Your task to perform on an android device: change timer sound Image 0: 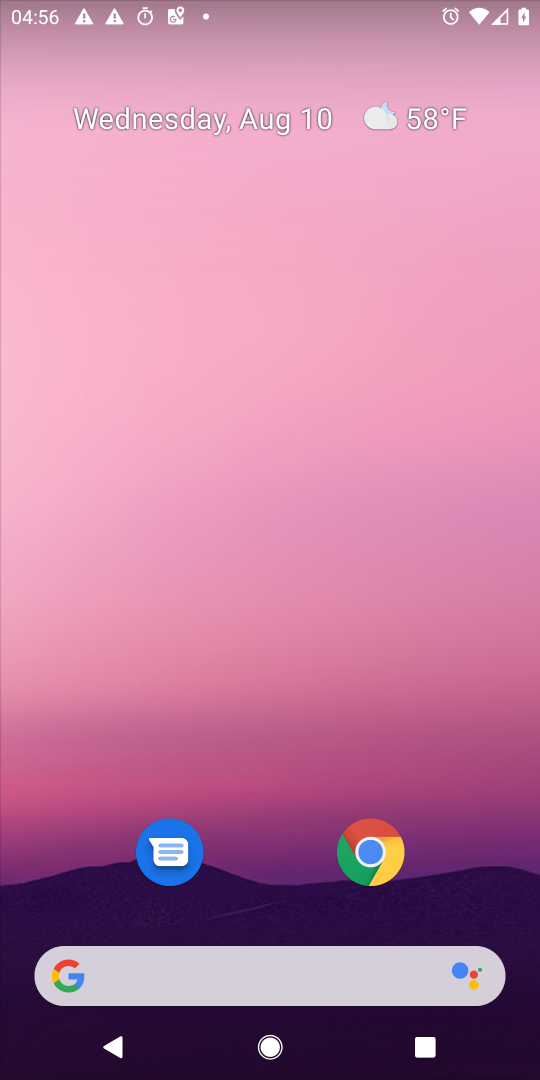
Step 0: drag from (243, 914) to (137, 375)
Your task to perform on an android device: change timer sound Image 1: 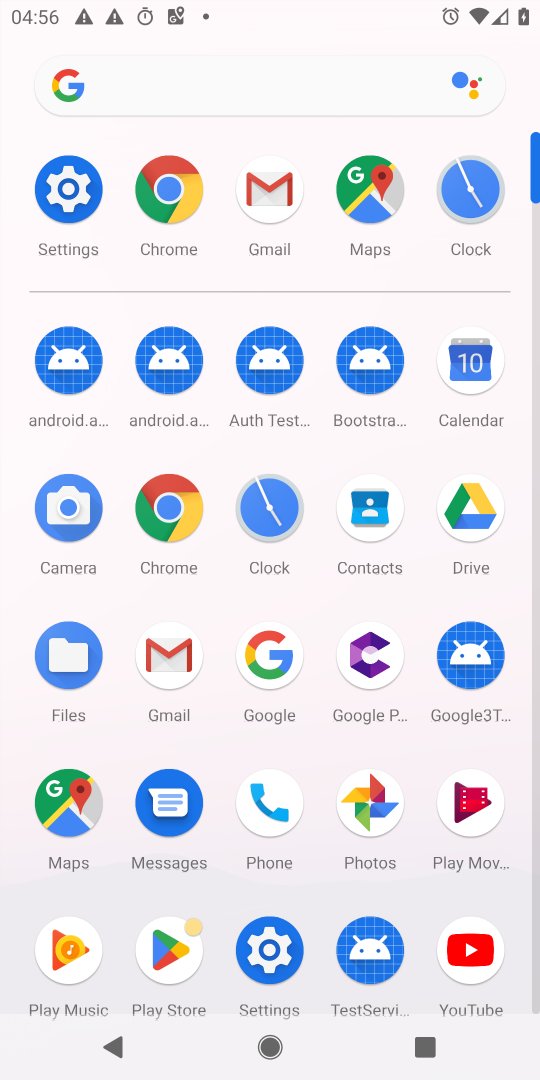
Step 1: click (270, 505)
Your task to perform on an android device: change timer sound Image 2: 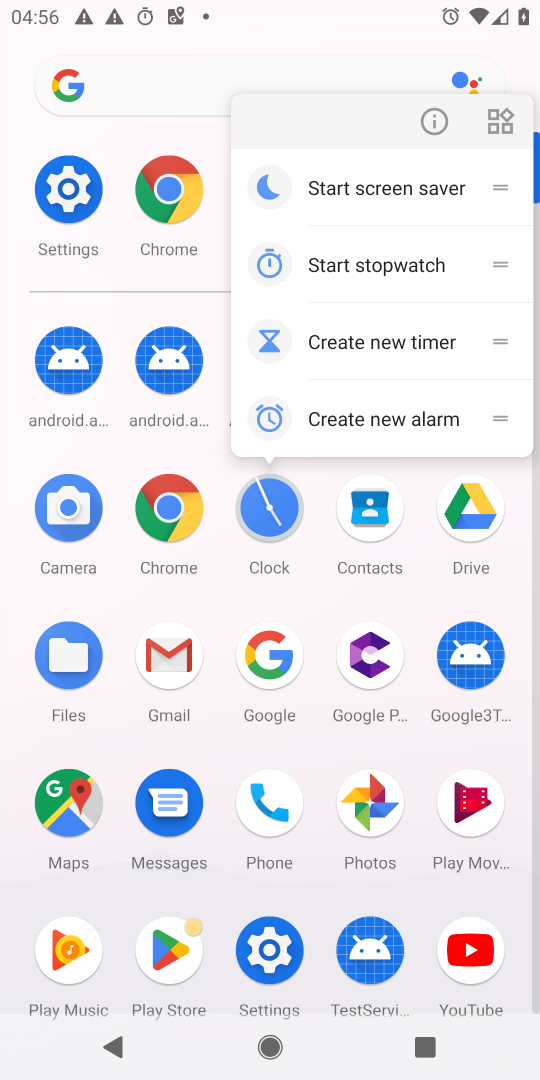
Step 2: click (269, 522)
Your task to perform on an android device: change timer sound Image 3: 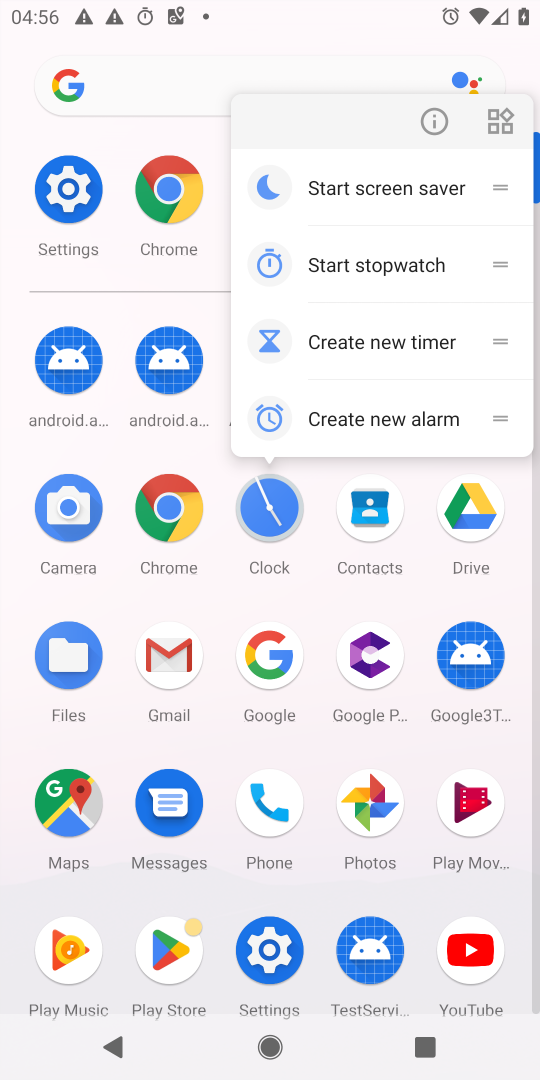
Step 3: click (269, 517)
Your task to perform on an android device: change timer sound Image 4: 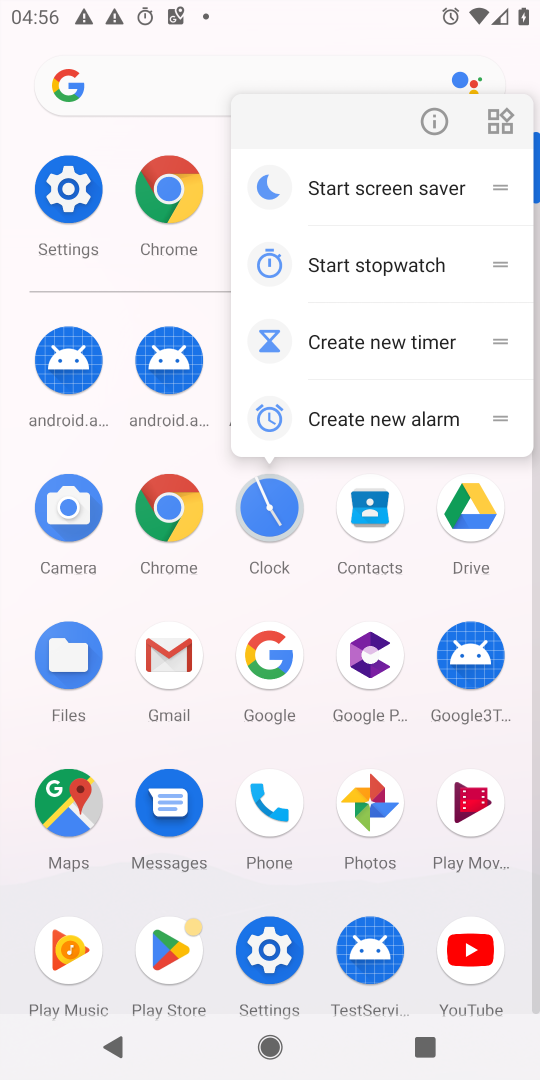
Step 4: click (275, 494)
Your task to perform on an android device: change timer sound Image 5: 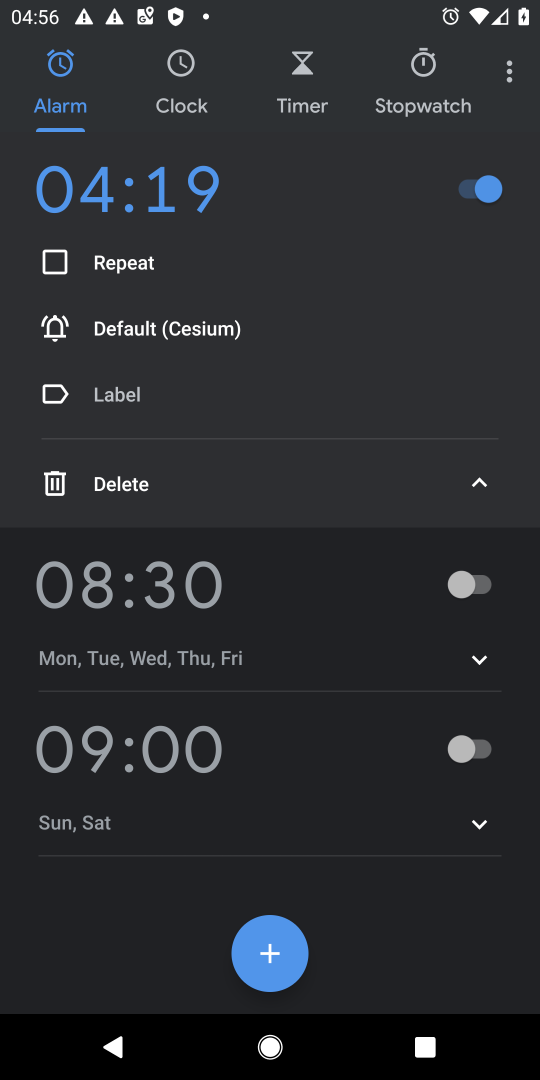
Step 5: click (497, 81)
Your task to perform on an android device: change timer sound Image 6: 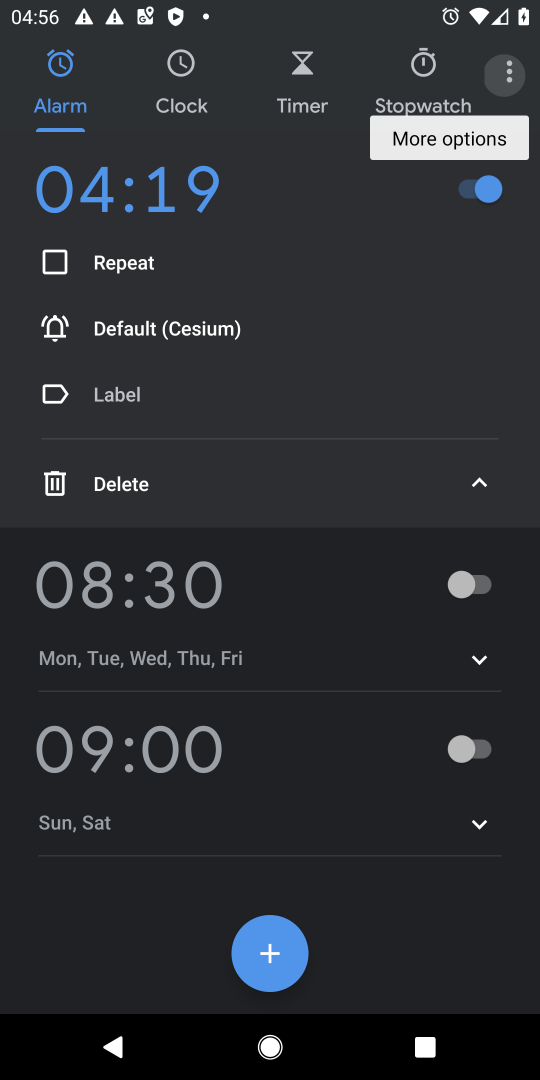
Step 6: click (497, 81)
Your task to perform on an android device: change timer sound Image 7: 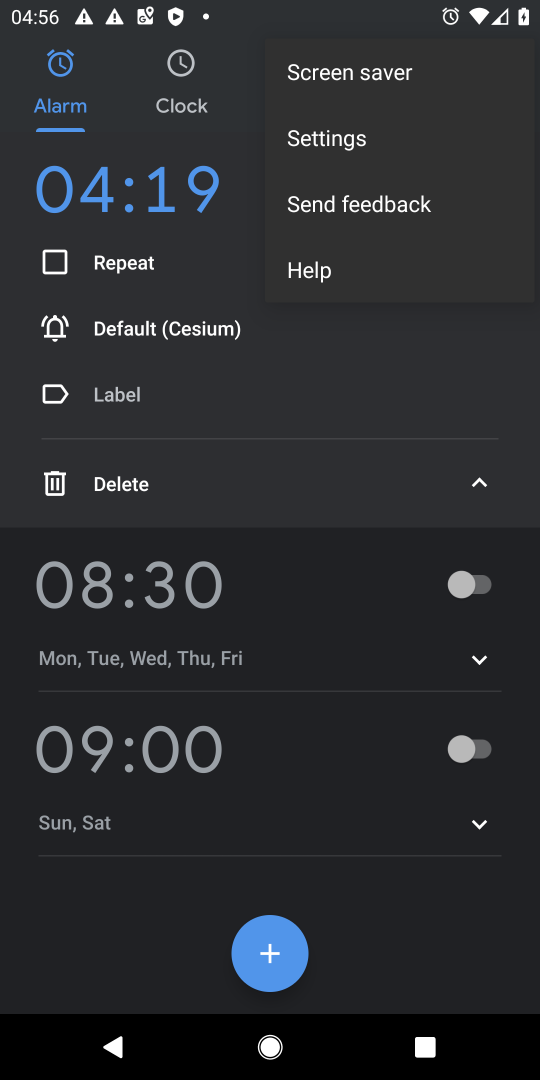
Step 7: click (372, 129)
Your task to perform on an android device: change timer sound Image 8: 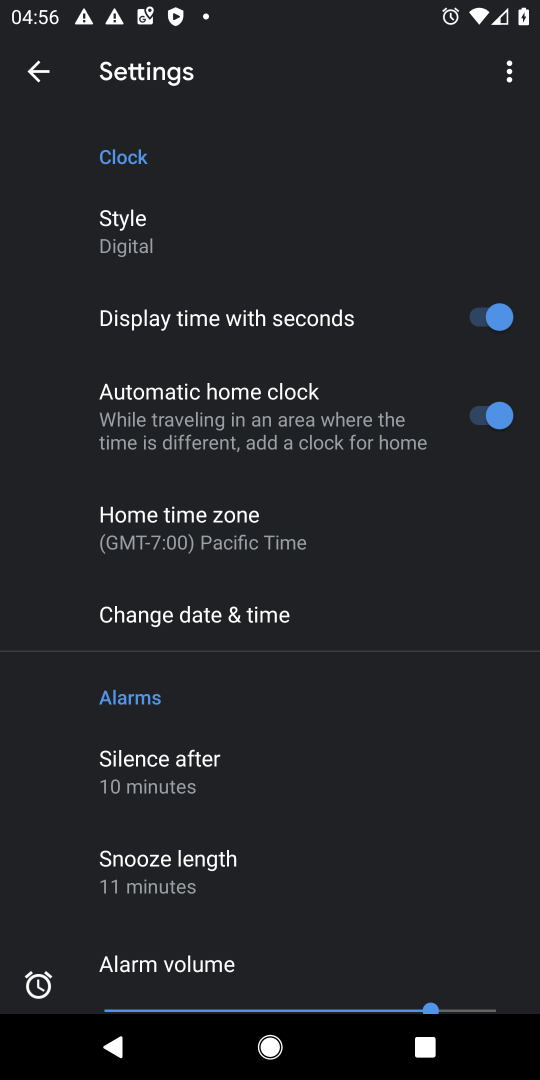
Step 8: drag from (281, 885) to (269, 444)
Your task to perform on an android device: change timer sound Image 9: 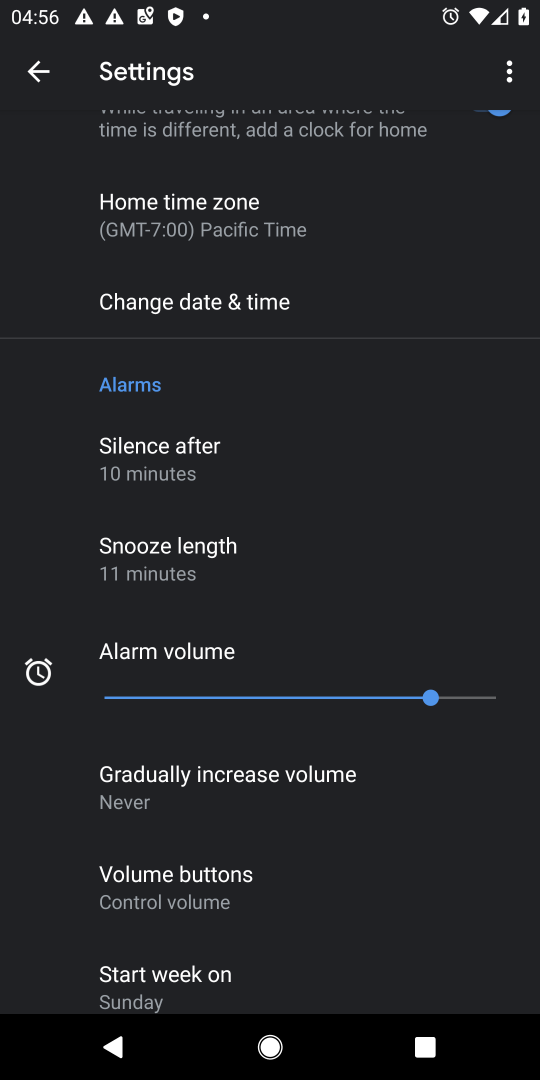
Step 9: drag from (297, 918) to (263, 491)
Your task to perform on an android device: change timer sound Image 10: 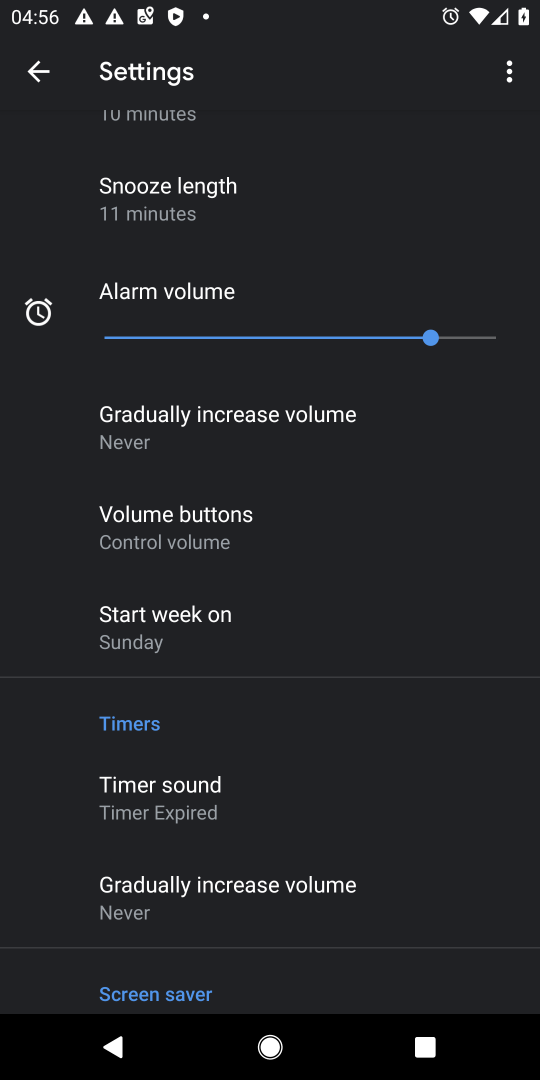
Step 10: click (178, 820)
Your task to perform on an android device: change timer sound Image 11: 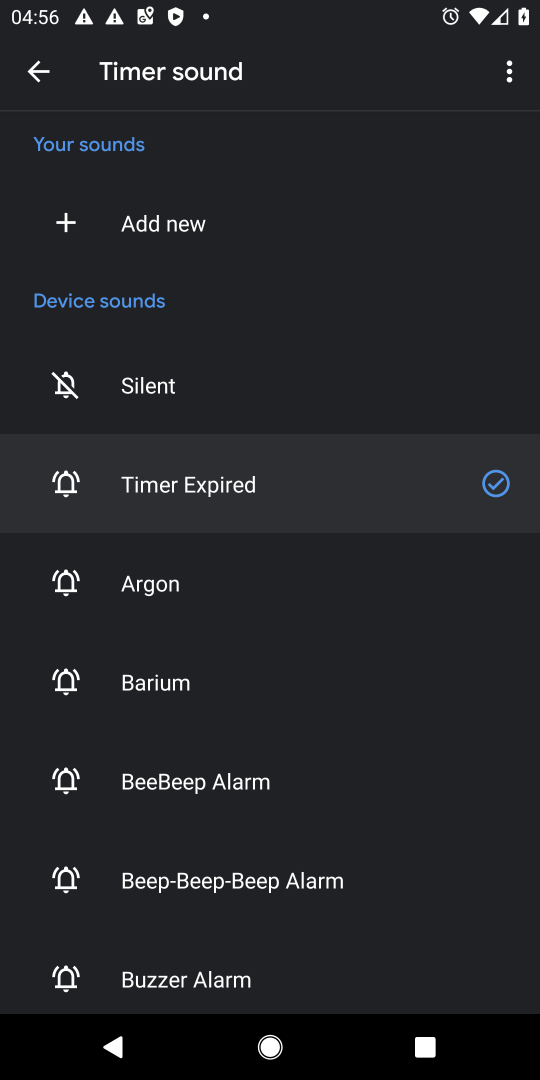
Step 11: click (242, 582)
Your task to perform on an android device: change timer sound Image 12: 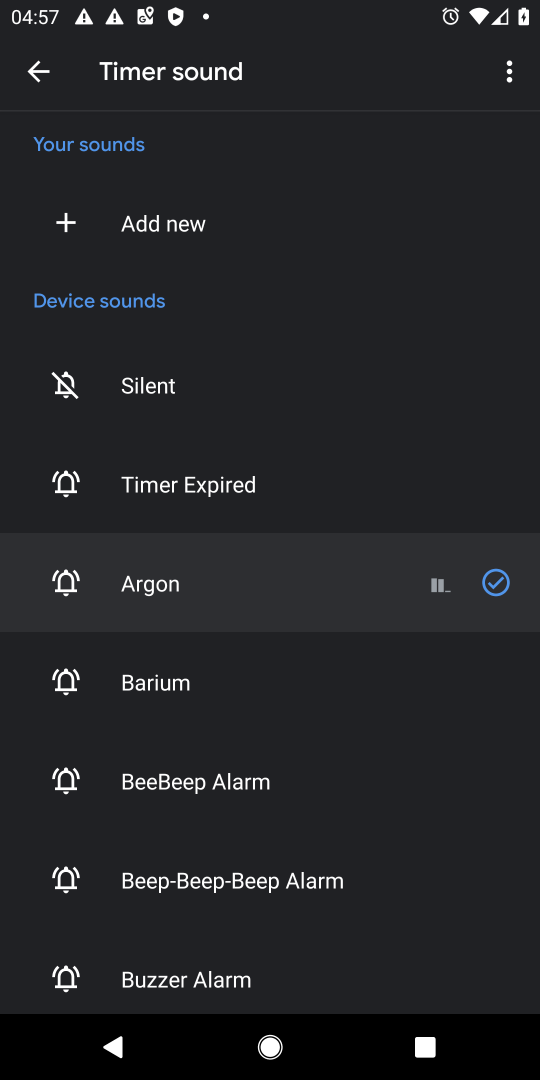
Step 12: task complete